Your task to perform on an android device: Open maps Image 0: 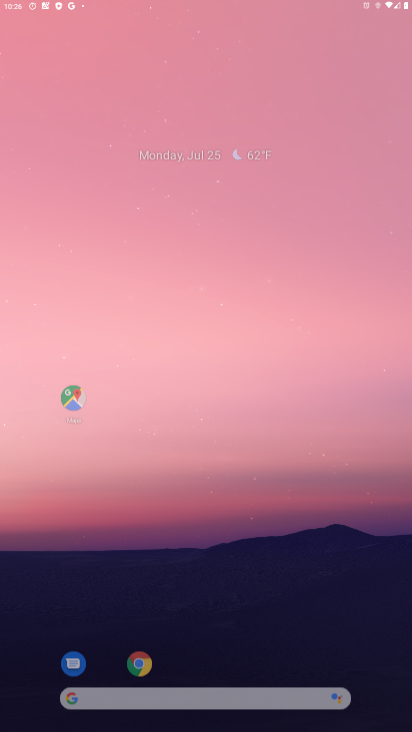
Step 0: click (188, 169)
Your task to perform on an android device: Open maps Image 1: 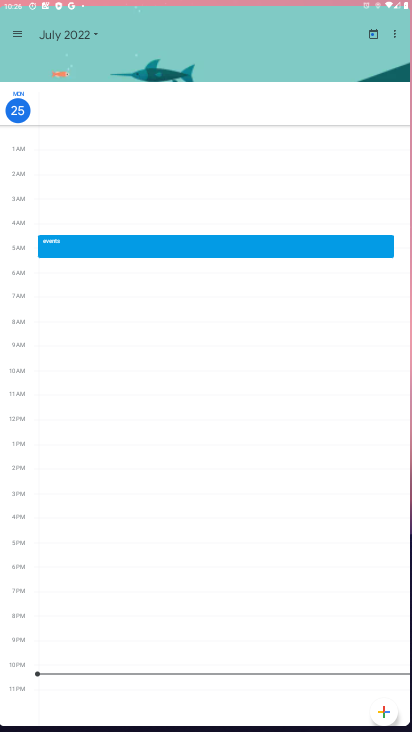
Step 1: drag from (207, 622) to (263, 144)
Your task to perform on an android device: Open maps Image 2: 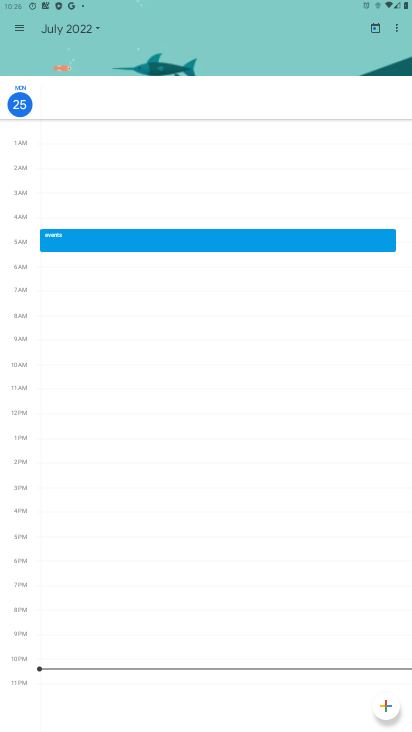
Step 2: press home button
Your task to perform on an android device: Open maps Image 3: 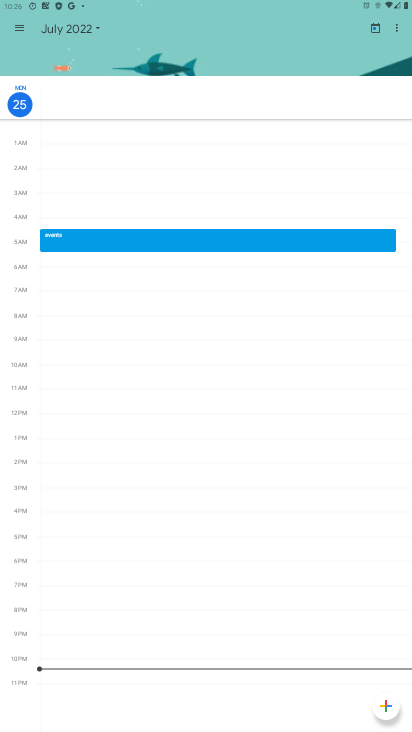
Step 3: drag from (188, 539) to (252, 133)
Your task to perform on an android device: Open maps Image 4: 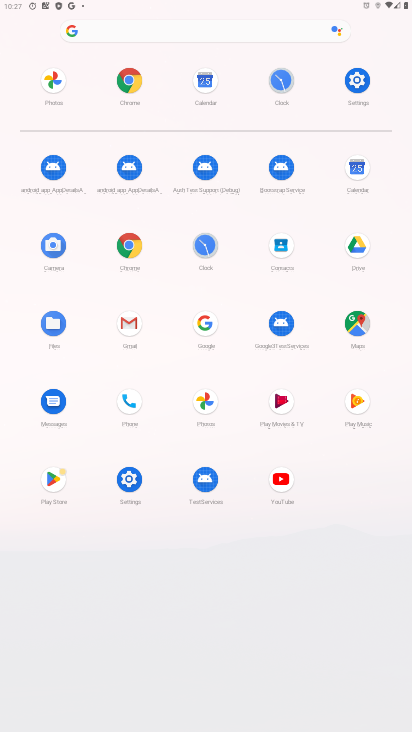
Step 4: click (355, 315)
Your task to perform on an android device: Open maps Image 5: 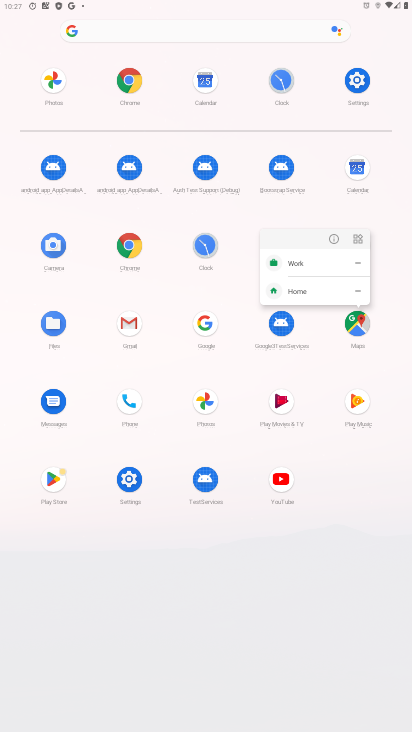
Step 5: click (328, 236)
Your task to perform on an android device: Open maps Image 6: 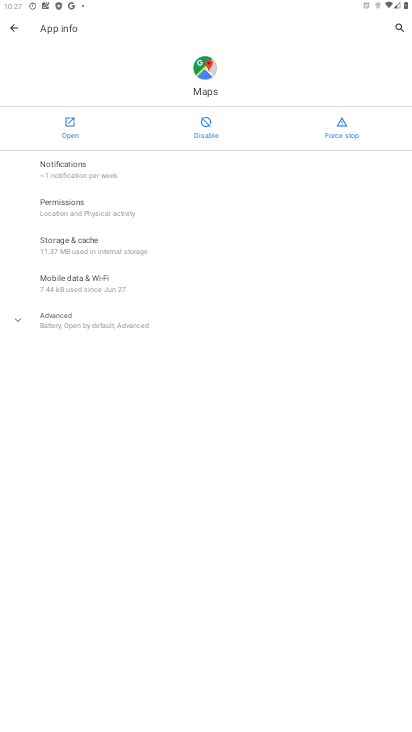
Step 6: click (57, 125)
Your task to perform on an android device: Open maps Image 7: 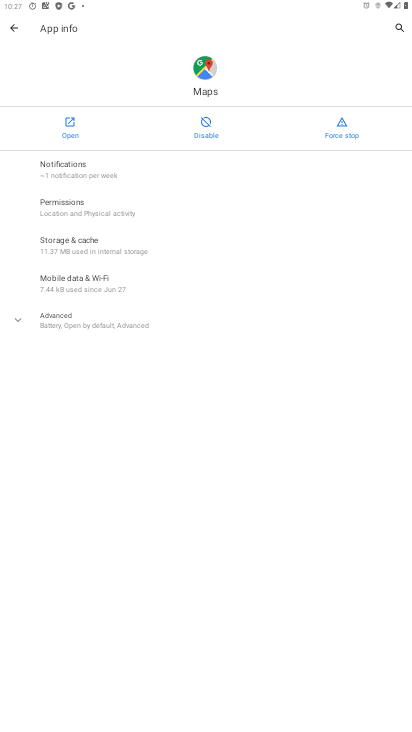
Step 7: click (57, 125)
Your task to perform on an android device: Open maps Image 8: 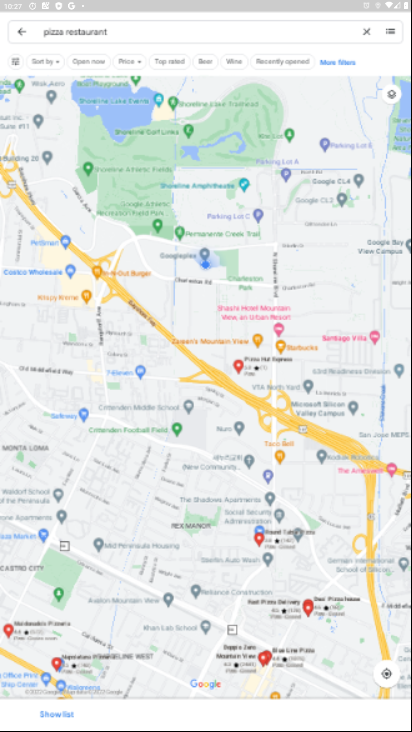
Step 8: task complete